Your task to perform on an android device: Open calendar and show me the fourth week of next month Image 0: 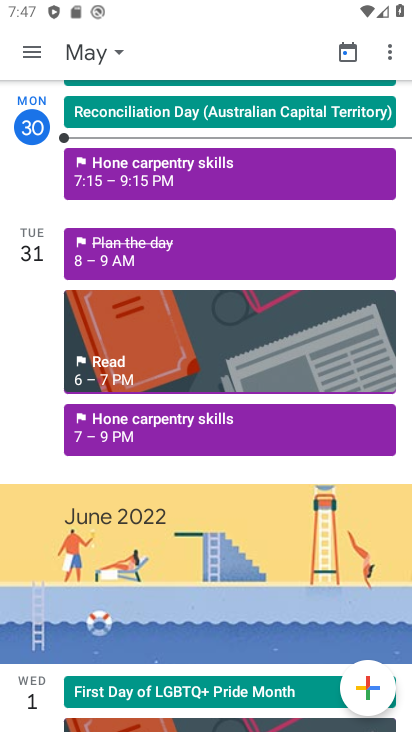
Step 0: click (92, 51)
Your task to perform on an android device: Open calendar and show me the fourth week of next month Image 1: 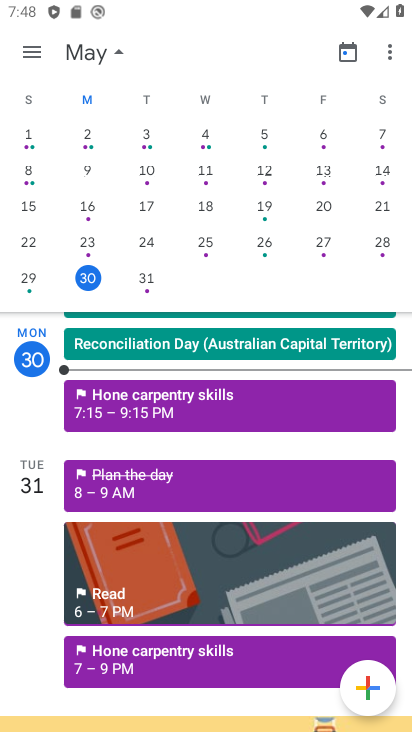
Step 1: drag from (379, 265) to (15, 226)
Your task to perform on an android device: Open calendar and show me the fourth week of next month Image 2: 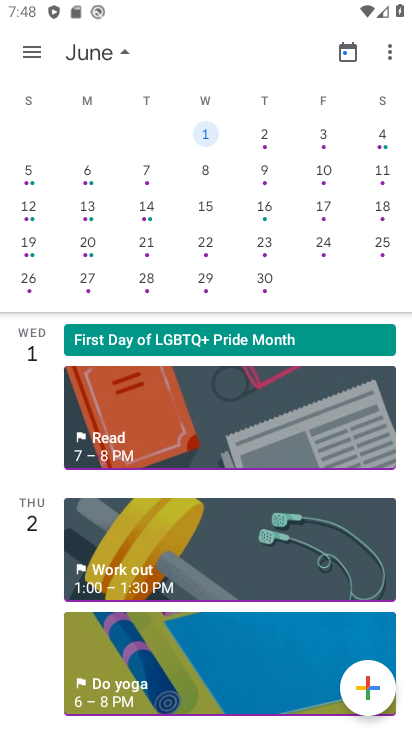
Step 2: click (28, 49)
Your task to perform on an android device: Open calendar and show me the fourth week of next month Image 3: 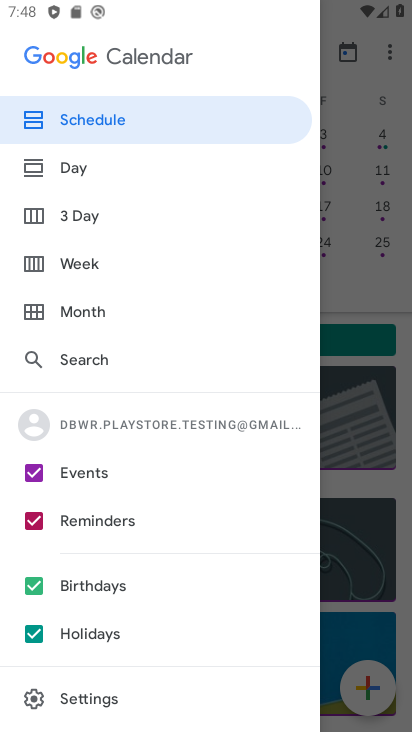
Step 3: click (86, 265)
Your task to perform on an android device: Open calendar and show me the fourth week of next month Image 4: 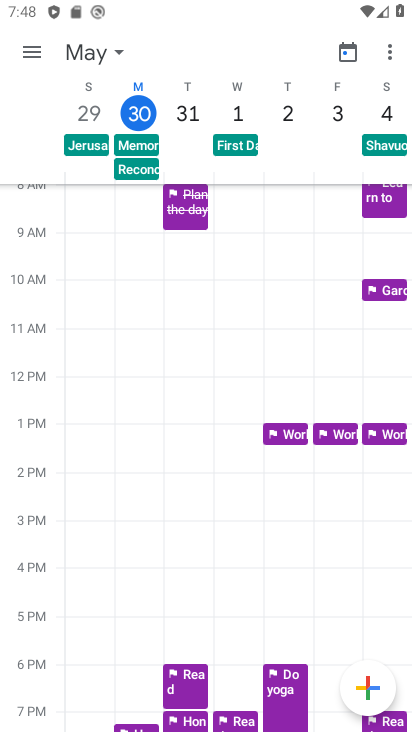
Step 4: task complete